Your task to perform on an android device: delete location history Image 0: 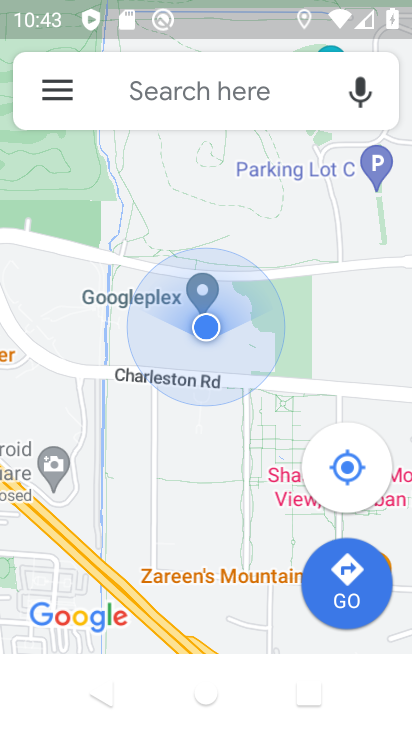
Step 0: click (46, 93)
Your task to perform on an android device: delete location history Image 1: 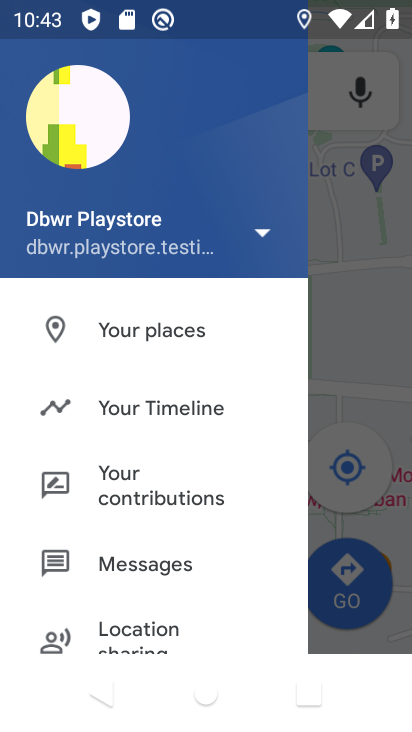
Step 1: click (123, 418)
Your task to perform on an android device: delete location history Image 2: 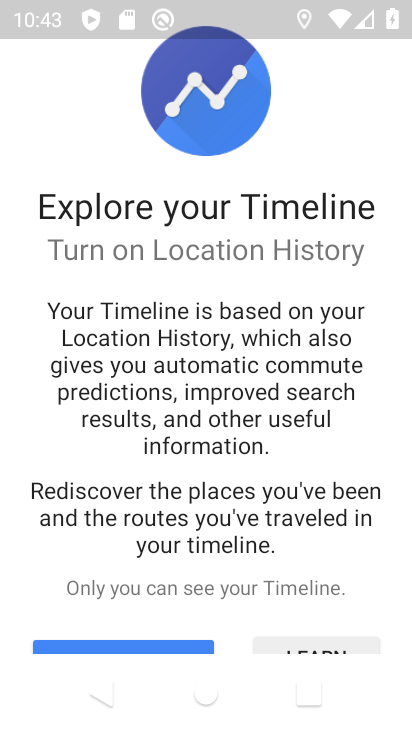
Step 2: drag from (265, 484) to (278, 209)
Your task to perform on an android device: delete location history Image 3: 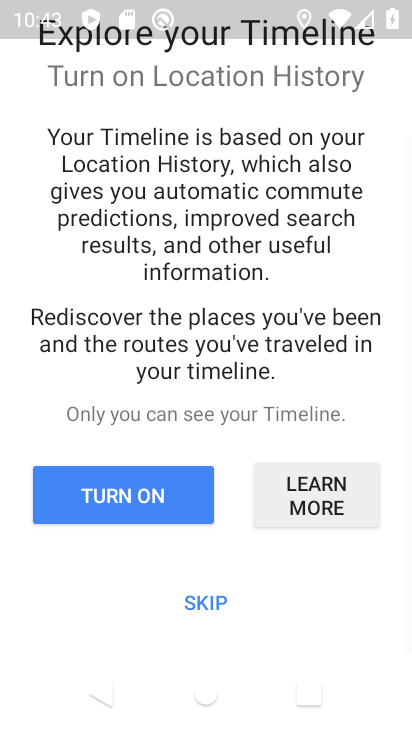
Step 3: click (181, 613)
Your task to perform on an android device: delete location history Image 4: 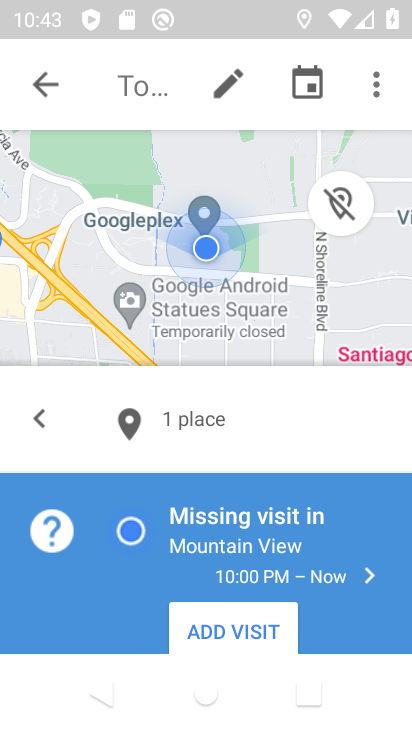
Step 4: click (379, 87)
Your task to perform on an android device: delete location history Image 5: 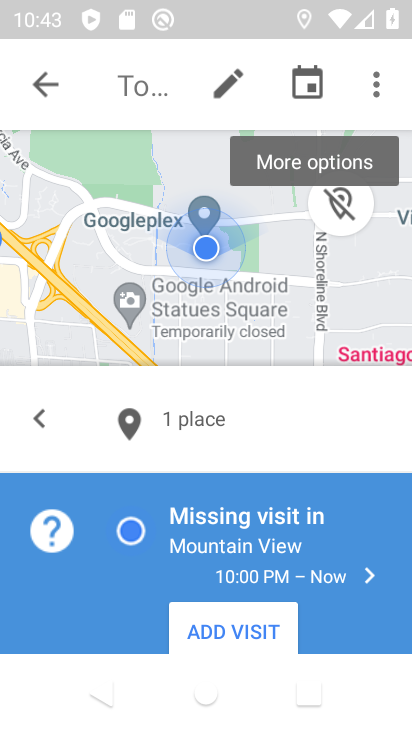
Step 5: click (379, 87)
Your task to perform on an android device: delete location history Image 6: 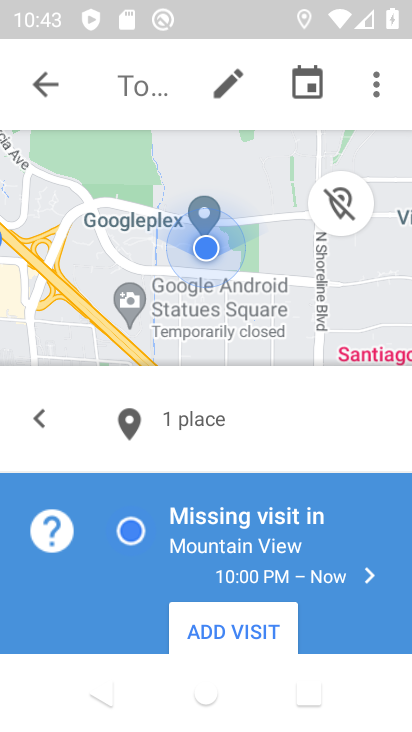
Step 6: click (371, 87)
Your task to perform on an android device: delete location history Image 7: 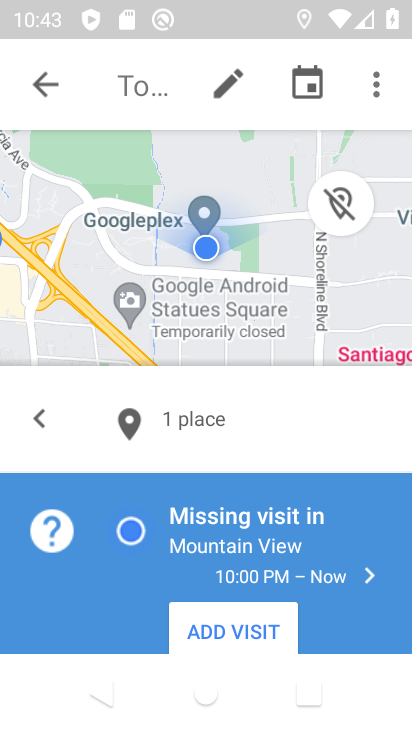
Step 7: click (377, 85)
Your task to perform on an android device: delete location history Image 8: 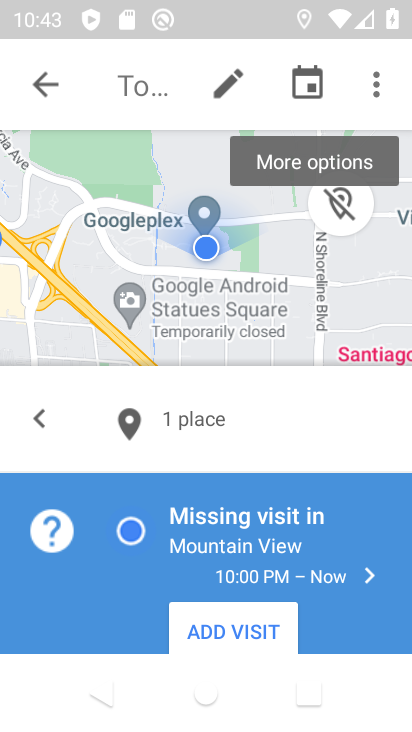
Step 8: click (340, 157)
Your task to perform on an android device: delete location history Image 9: 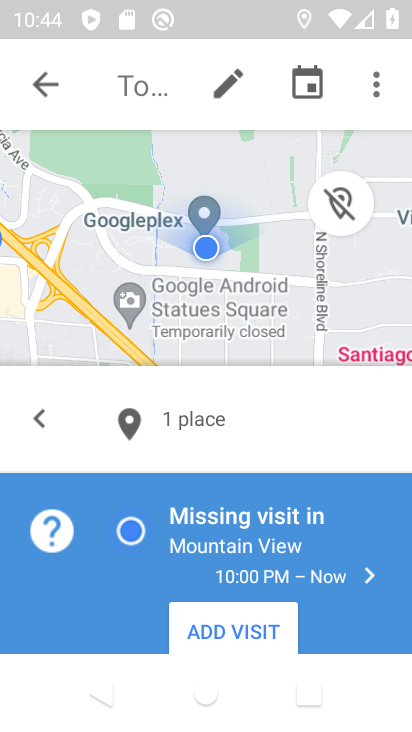
Step 9: click (375, 83)
Your task to perform on an android device: delete location history Image 10: 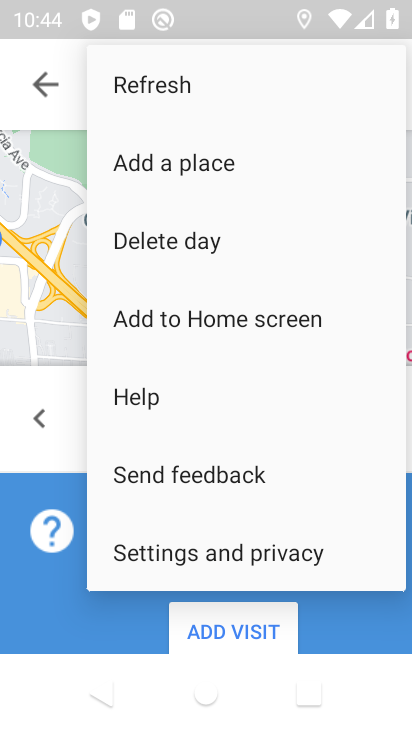
Step 10: click (174, 553)
Your task to perform on an android device: delete location history Image 11: 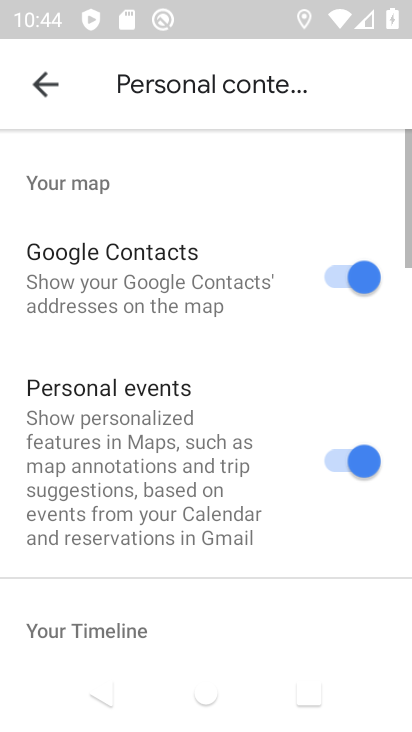
Step 11: drag from (174, 553) to (178, 190)
Your task to perform on an android device: delete location history Image 12: 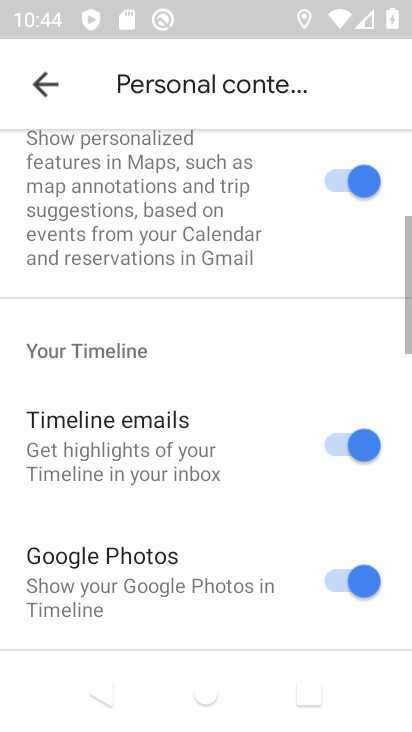
Step 12: drag from (102, 564) to (141, 119)
Your task to perform on an android device: delete location history Image 13: 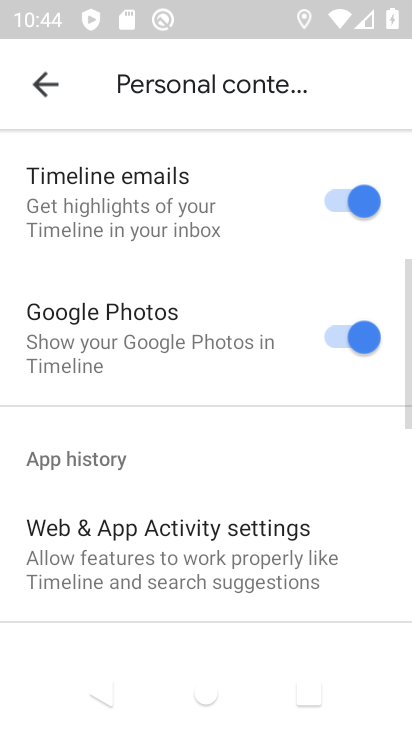
Step 13: drag from (120, 597) to (127, 134)
Your task to perform on an android device: delete location history Image 14: 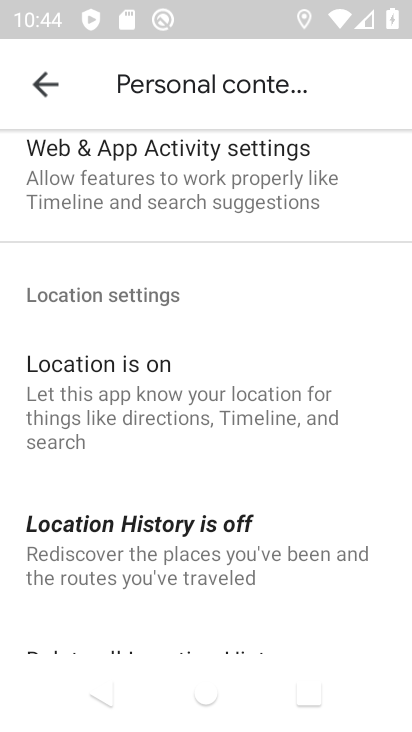
Step 14: drag from (131, 535) to (142, 280)
Your task to perform on an android device: delete location history Image 15: 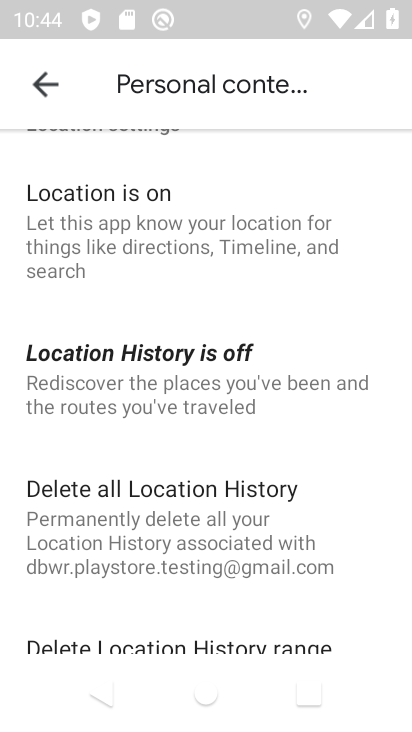
Step 15: click (133, 518)
Your task to perform on an android device: delete location history Image 16: 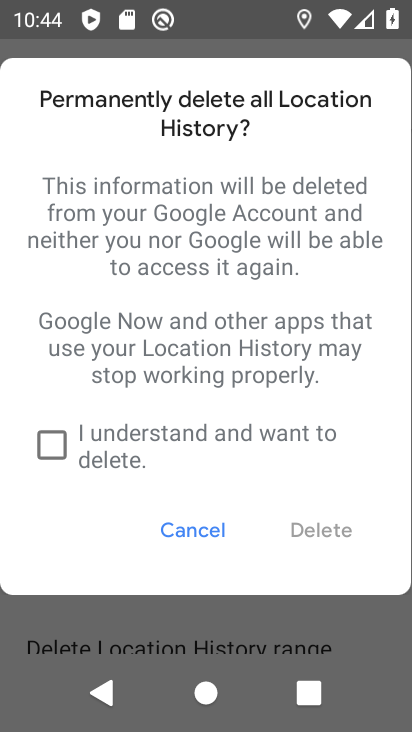
Step 16: click (56, 457)
Your task to perform on an android device: delete location history Image 17: 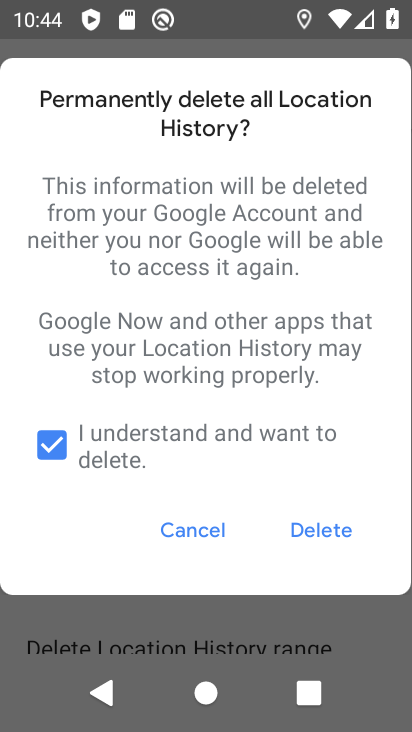
Step 17: click (342, 536)
Your task to perform on an android device: delete location history Image 18: 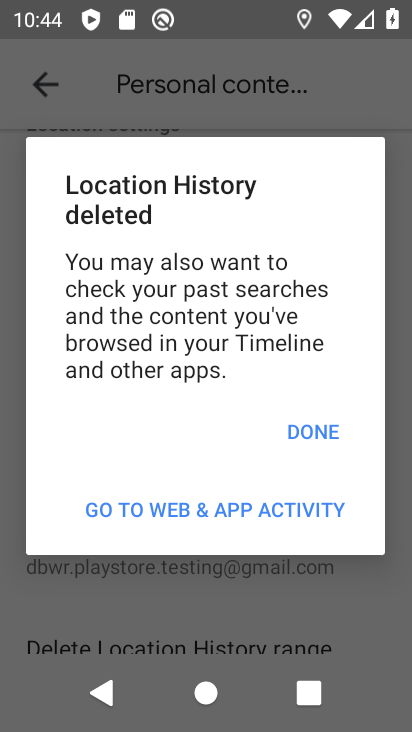
Step 18: click (303, 427)
Your task to perform on an android device: delete location history Image 19: 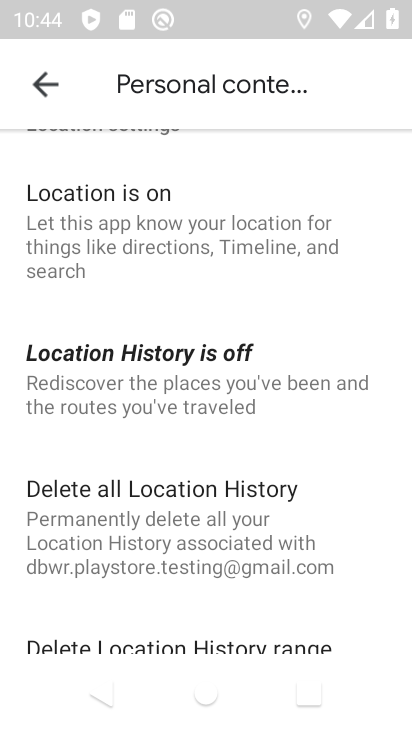
Step 19: task complete